Your task to perform on an android device: Go to location settings Image 0: 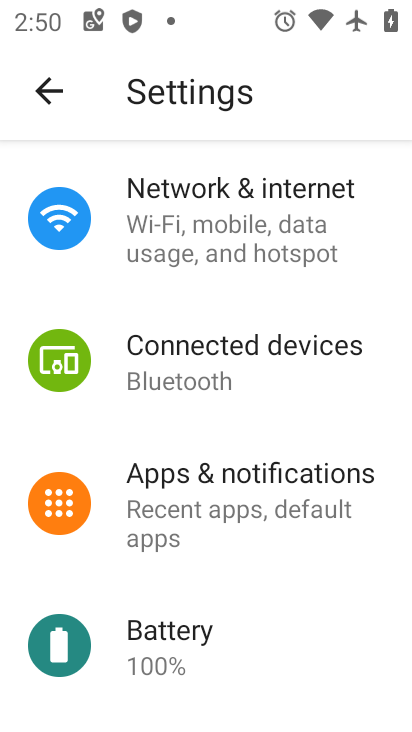
Step 0: drag from (209, 623) to (250, 400)
Your task to perform on an android device: Go to location settings Image 1: 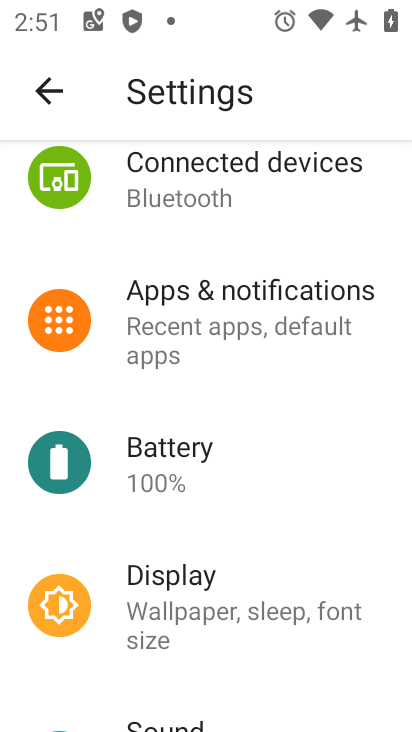
Step 1: drag from (243, 579) to (306, 370)
Your task to perform on an android device: Go to location settings Image 2: 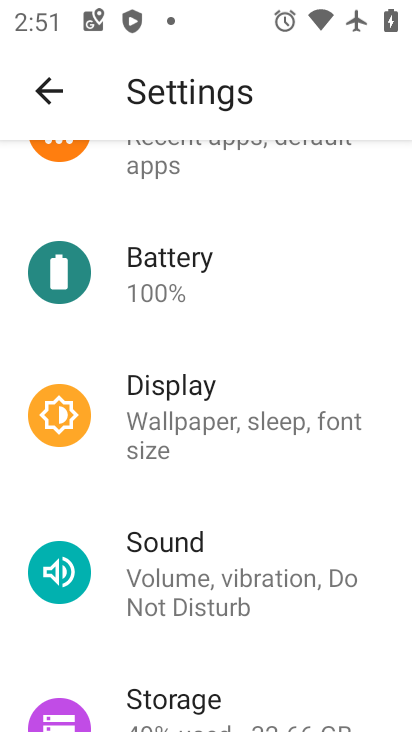
Step 2: drag from (239, 662) to (299, 287)
Your task to perform on an android device: Go to location settings Image 3: 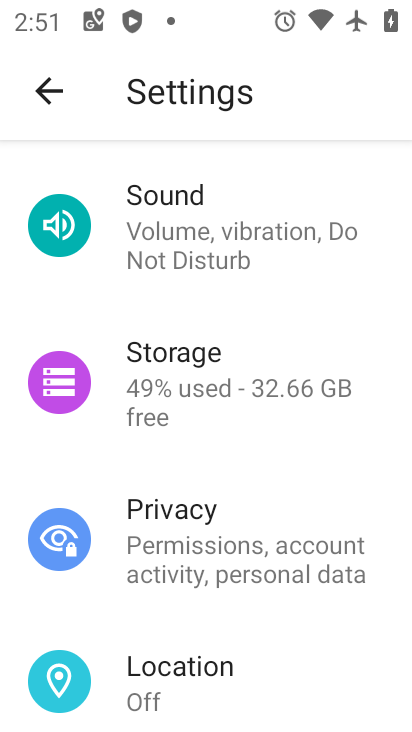
Step 3: click (241, 663)
Your task to perform on an android device: Go to location settings Image 4: 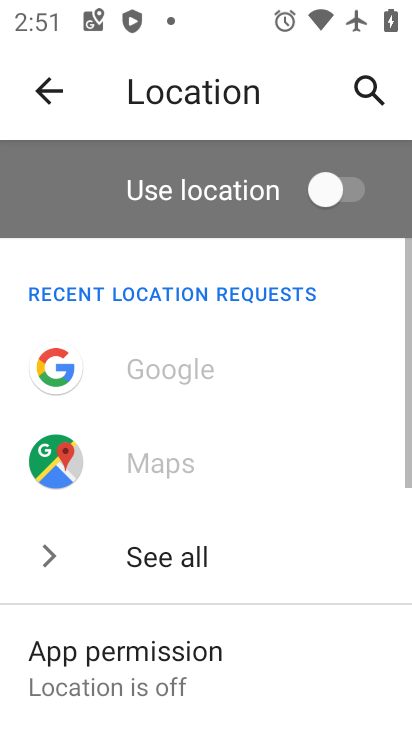
Step 4: task complete